Your task to perform on an android device: toggle improve location accuracy Image 0: 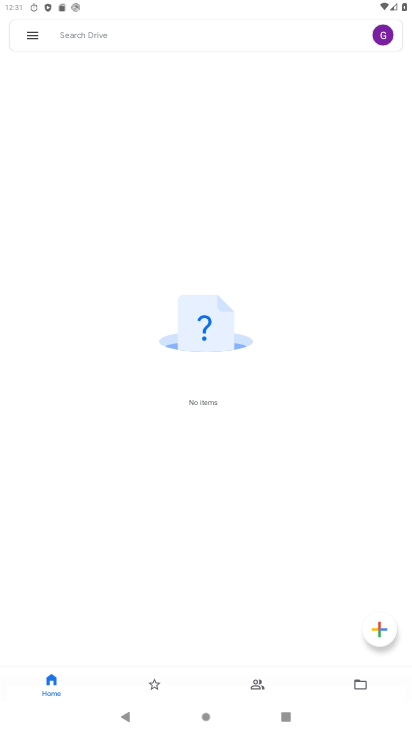
Step 0: press home button
Your task to perform on an android device: toggle improve location accuracy Image 1: 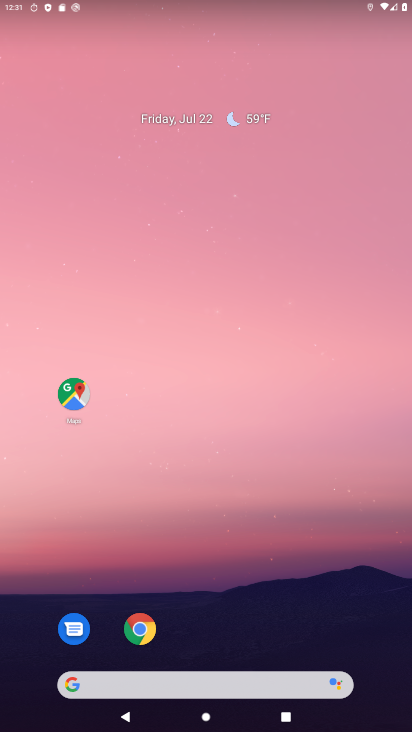
Step 1: drag from (279, 613) to (308, 105)
Your task to perform on an android device: toggle improve location accuracy Image 2: 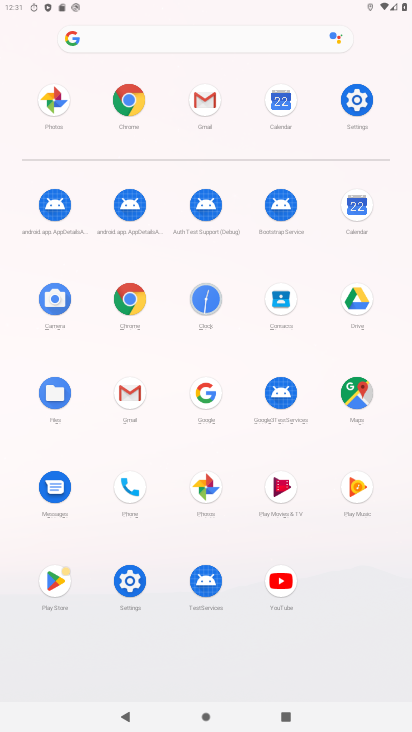
Step 2: click (353, 107)
Your task to perform on an android device: toggle improve location accuracy Image 3: 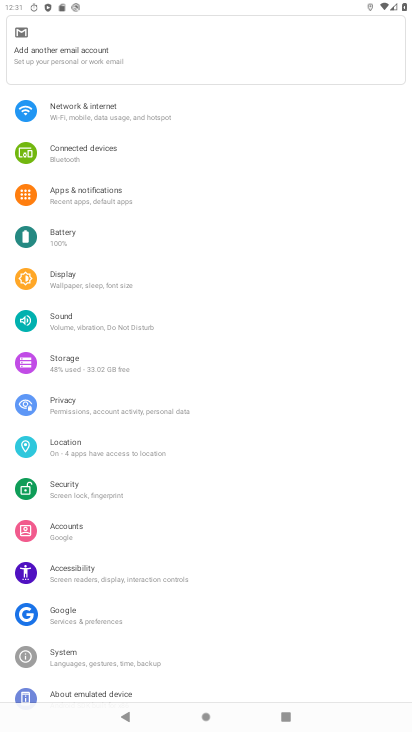
Step 3: click (85, 450)
Your task to perform on an android device: toggle improve location accuracy Image 4: 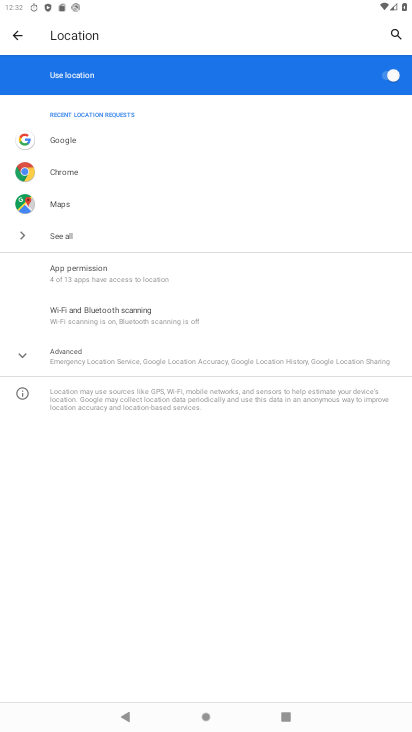
Step 4: click (190, 356)
Your task to perform on an android device: toggle improve location accuracy Image 5: 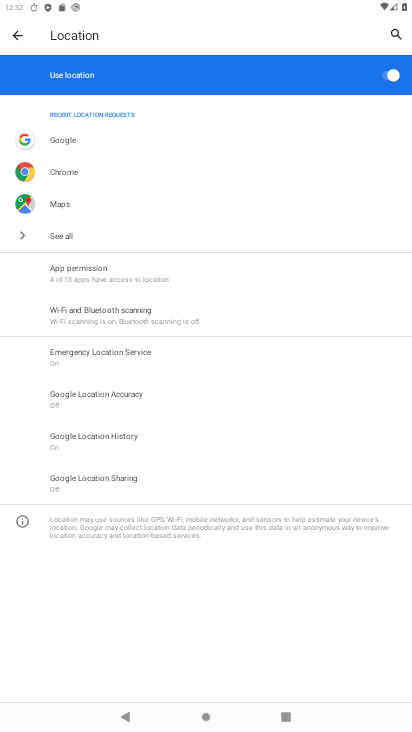
Step 5: click (138, 409)
Your task to perform on an android device: toggle improve location accuracy Image 6: 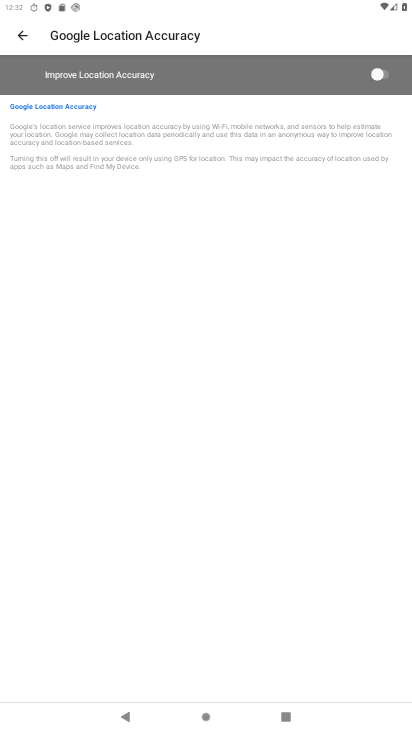
Step 6: click (374, 73)
Your task to perform on an android device: toggle improve location accuracy Image 7: 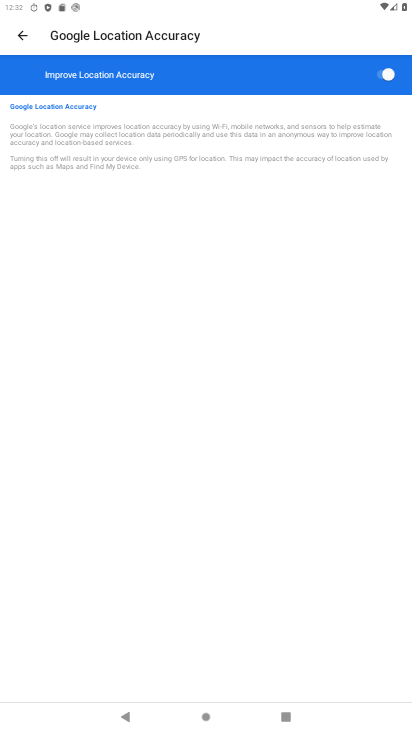
Step 7: task complete